Your task to perform on an android device: Open eBay Image 0: 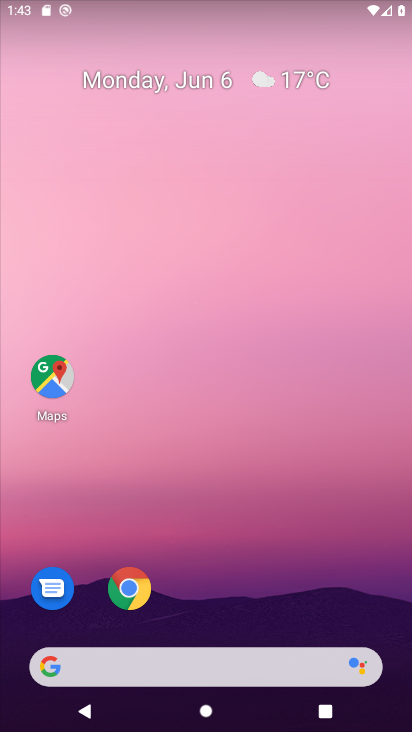
Step 0: click (133, 592)
Your task to perform on an android device: Open eBay Image 1: 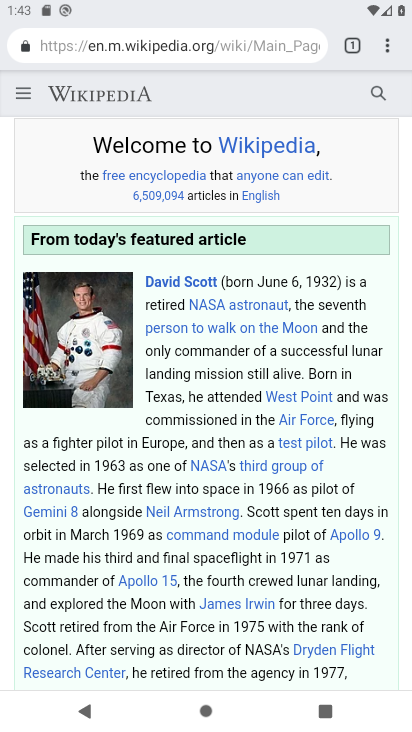
Step 1: press back button
Your task to perform on an android device: Open eBay Image 2: 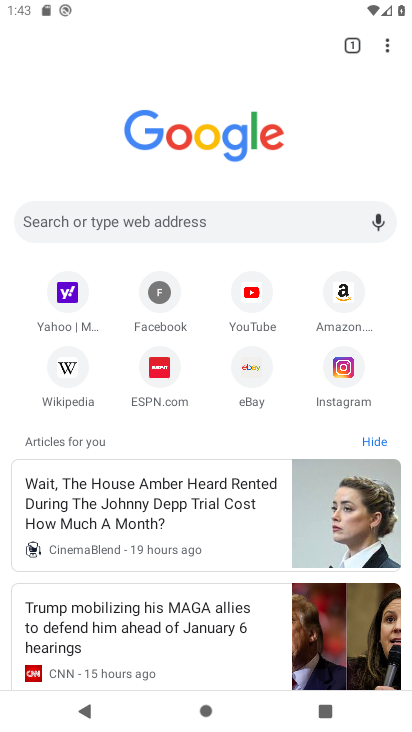
Step 2: click (256, 378)
Your task to perform on an android device: Open eBay Image 3: 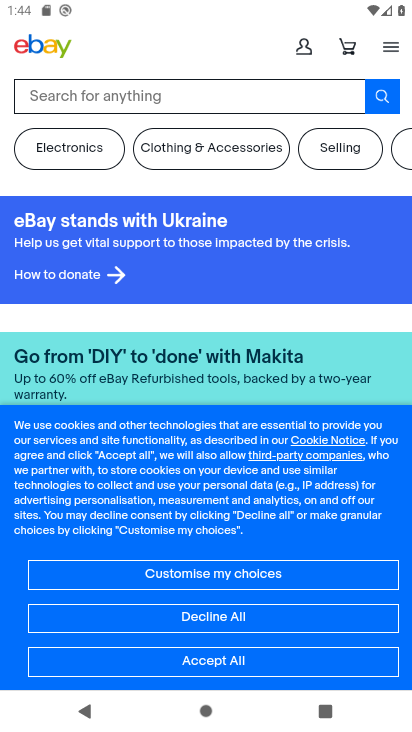
Step 3: task complete